Your task to perform on an android device: toggle show notifications on the lock screen Image 0: 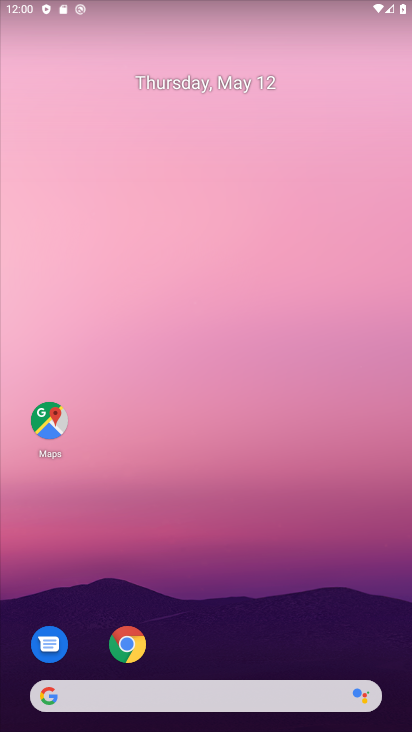
Step 0: drag from (287, 623) to (217, 54)
Your task to perform on an android device: toggle show notifications on the lock screen Image 1: 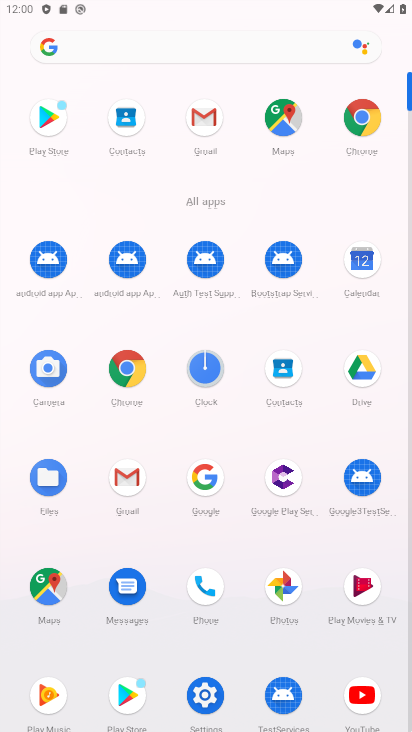
Step 1: click (206, 690)
Your task to perform on an android device: toggle show notifications on the lock screen Image 2: 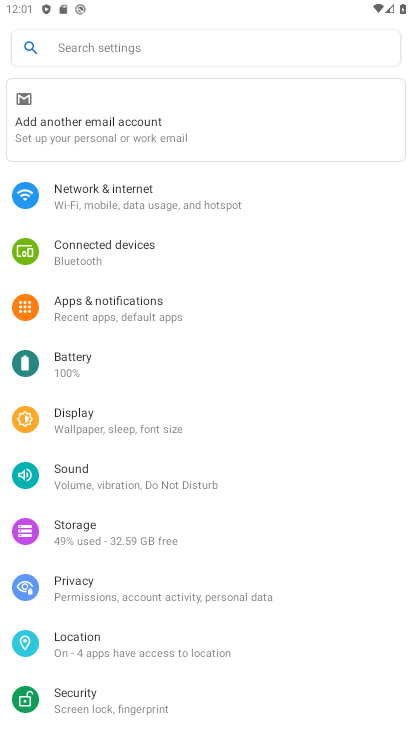
Step 2: press home button
Your task to perform on an android device: toggle show notifications on the lock screen Image 3: 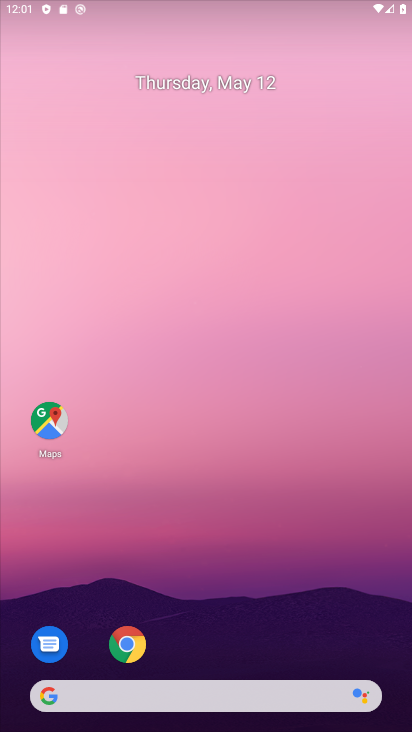
Step 3: drag from (223, 591) to (193, 0)
Your task to perform on an android device: toggle show notifications on the lock screen Image 4: 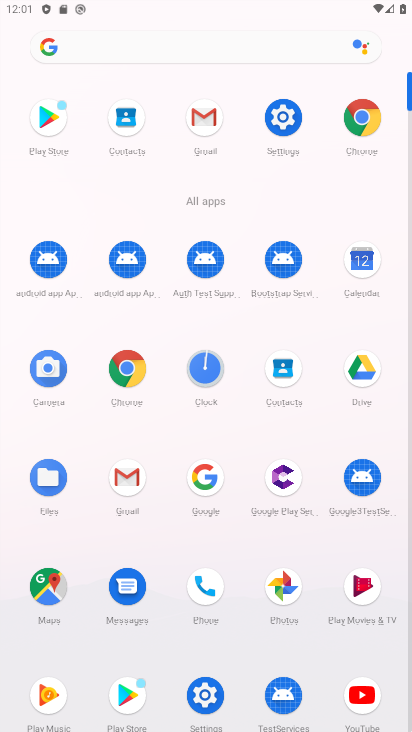
Step 4: click (212, 698)
Your task to perform on an android device: toggle show notifications on the lock screen Image 5: 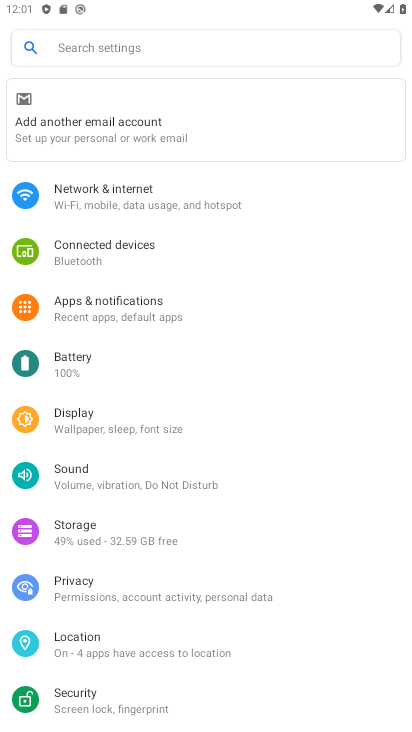
Step 5: click (117, 288)
Your task to perform on an android device: toggle show notifications on the lock screen Image 6: 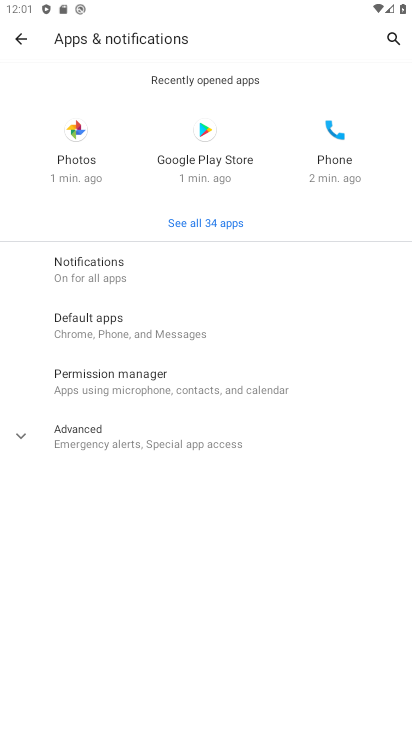
Step 6: click (161, 276)
Your task to perform on an android device: toggle show notifications on the lock screen Image 7: 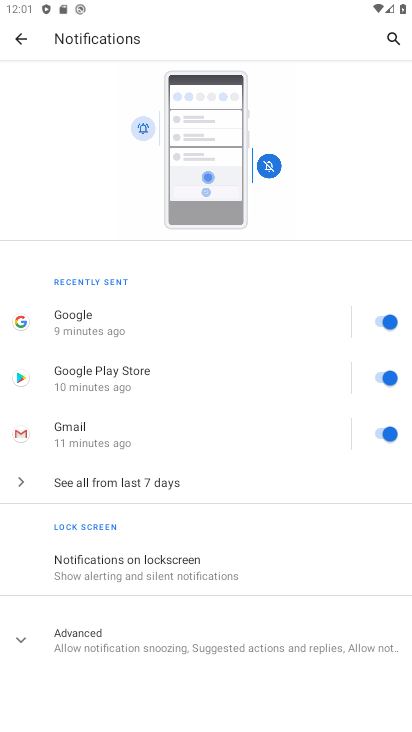
Step 7: drag from (200, 589) to (192, 484)
Your task to perform on an android device: toggle show notifications on the lock screen Image 8: 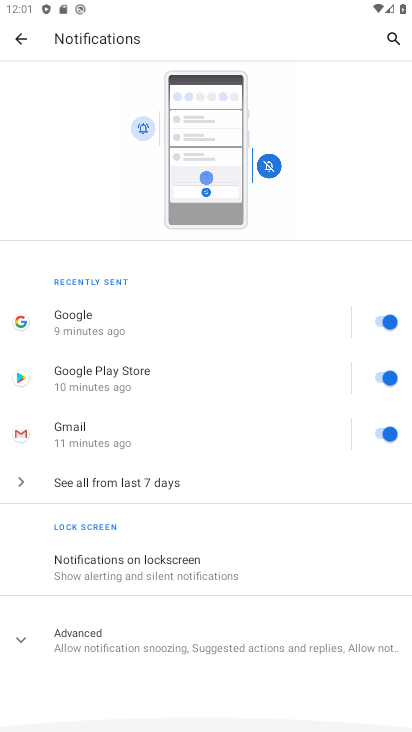
Step 8: click (192, 569)
Your task to perform on an android device: toggle show notifications on the lock screen Image 9: 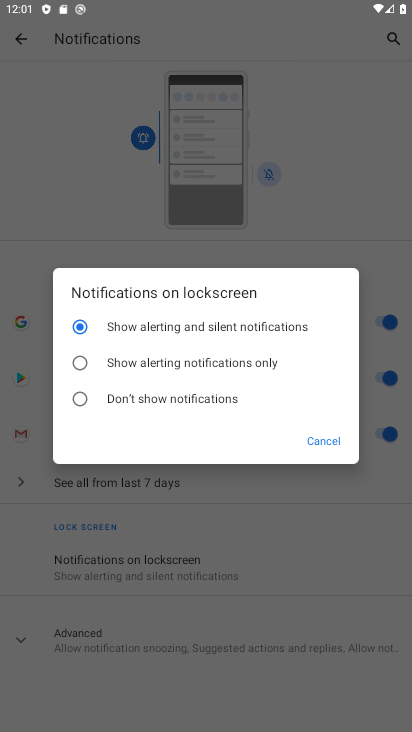
Step 9: click (183, 405)
Your task to perform on an android device: toggle show notifications on the lock screen Image 10: 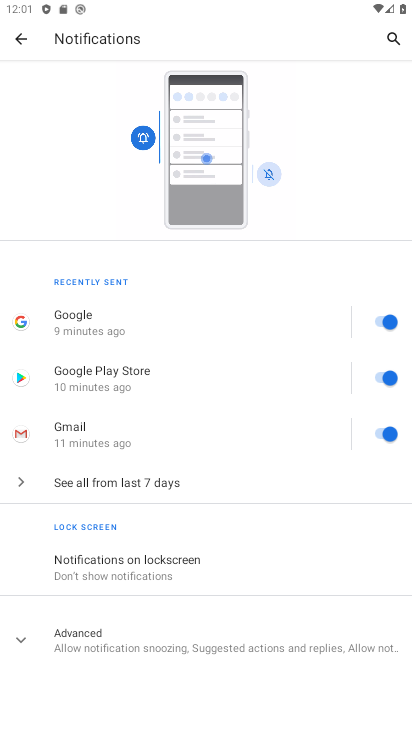
Step 10: task complete